Your task to perform on an android device: turn on the 12-hour format for clock Image 0: 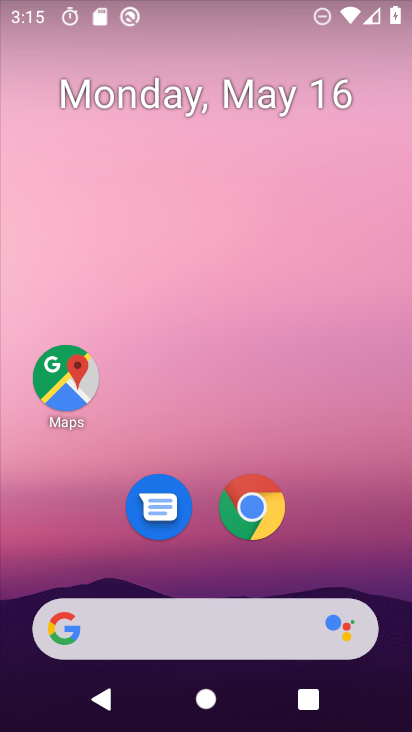
Step 0: drag from (390, 393) to (324, 3)
Your task to perform on an android device: turn on the 12-hour format for clock Image 1: 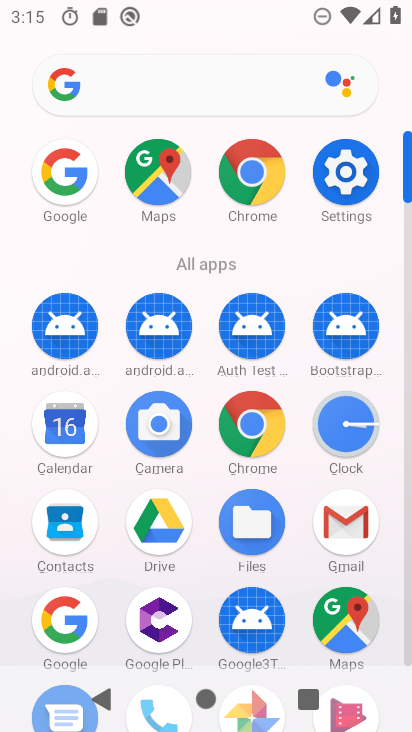
Step 1: click (358, 436)
Your task to perform on an android device: turn on the 12-hour format for clock Image 2: 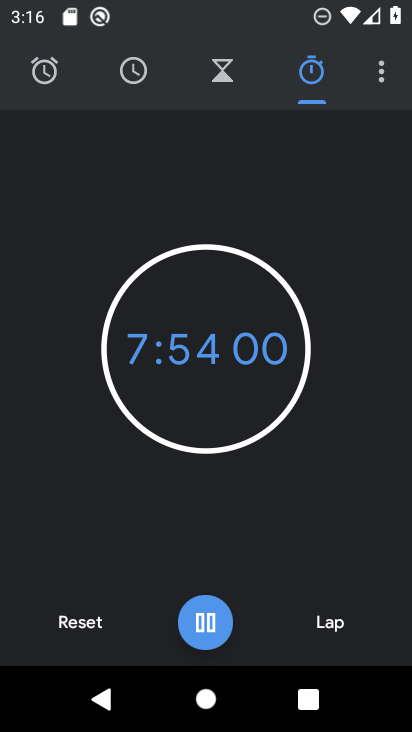
Step 2: click (384, 73)
Your task to perform on an android device: turn on the 12-hour format for clock Image 3: 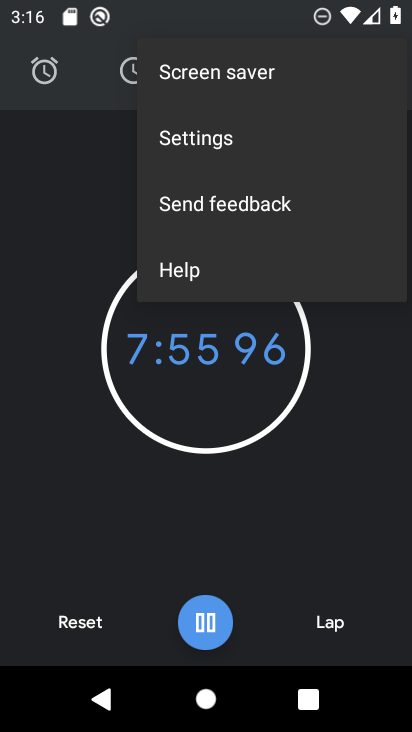
Step 3: click (221, 133)
Your task to perform on an android device: turn on the 12-hour format for clock Image 4: 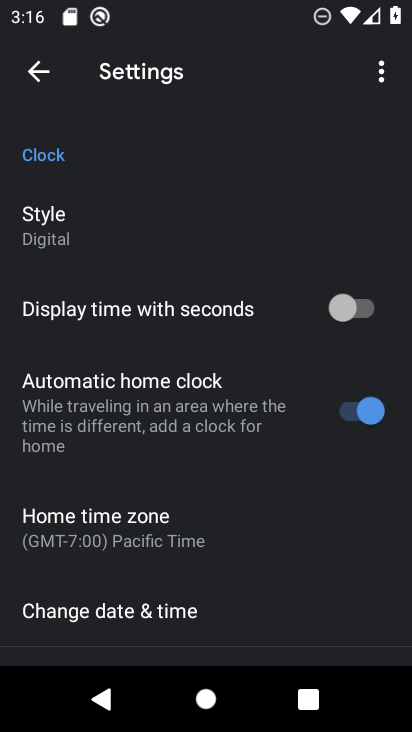
Step 4: drag from (139, 551) to (239, 225)
Your task to perform on an android device: turn on the 12-hour format for clock Image 5: 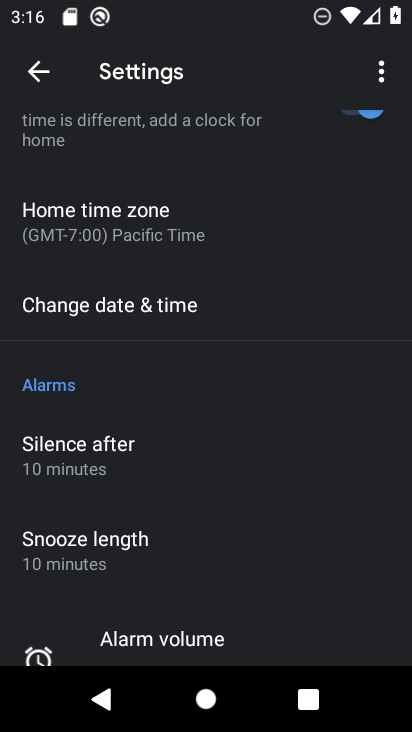
Step 5: click (142, 308)
Your task to perform on an android device: turn on the 12-hour format for clock Image 6: 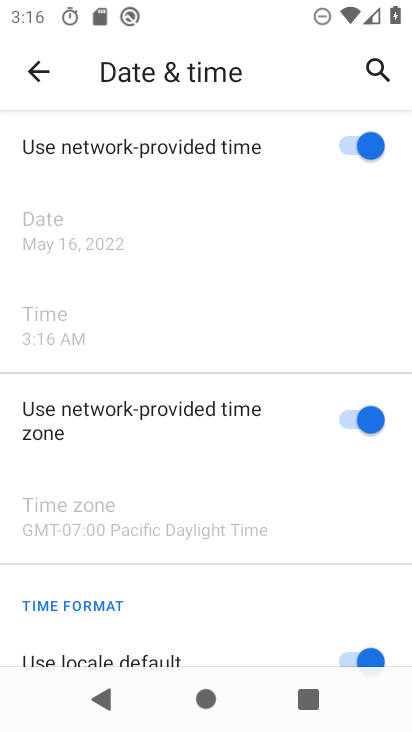
Step 6: click (258, 118)
Your task to perform on an android device: turn on the 12-hour format for clock Image 7: 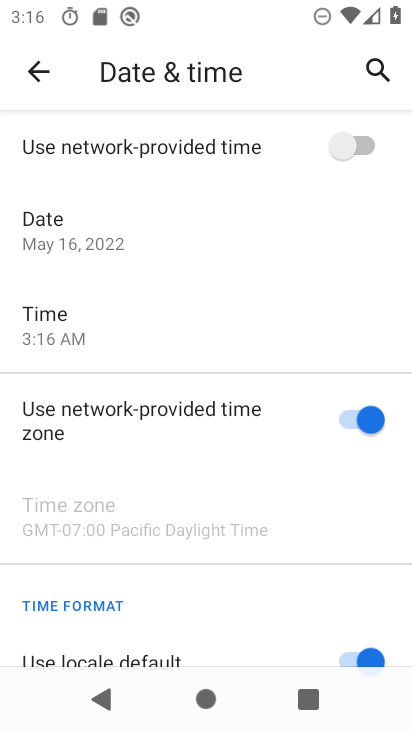
Step 7: task complete